Your task to perform on an android device: Go to accessibility settings Image 0: 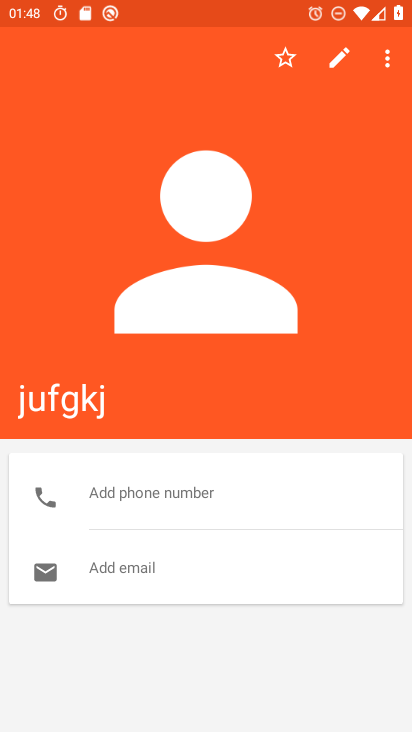
Step 0: press home button
Your task to perform on an android device: Go to accessibility settings Image 1: 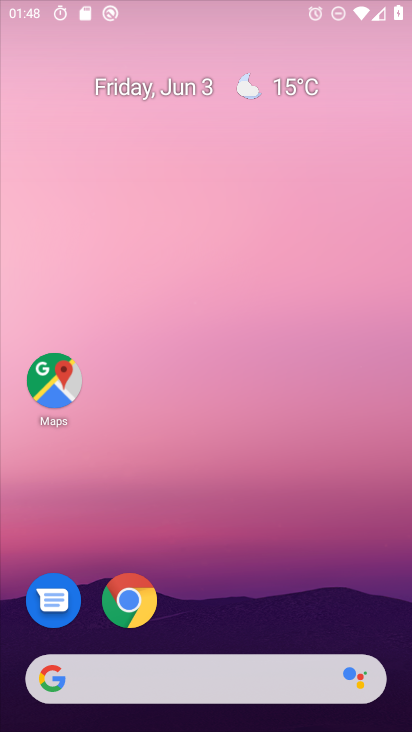
Step 1: drag from (220, 510) to (222, 71)
Your task to perform on an android device: Go to accessibility settings Image 2: 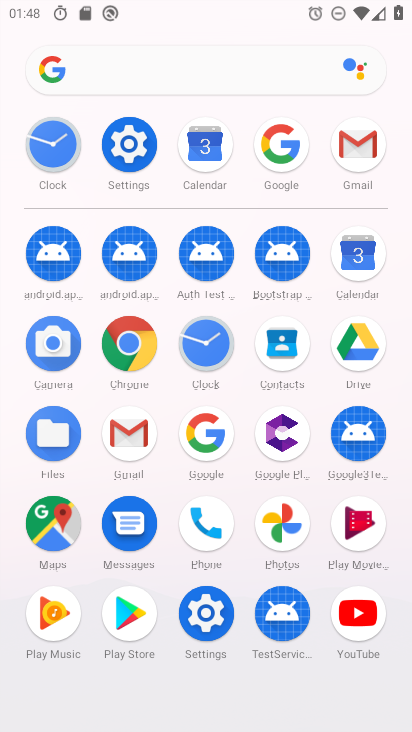
Step 2: click (126, 151)
Your task to perform on an android device: Go to accessibility settings Image 3: 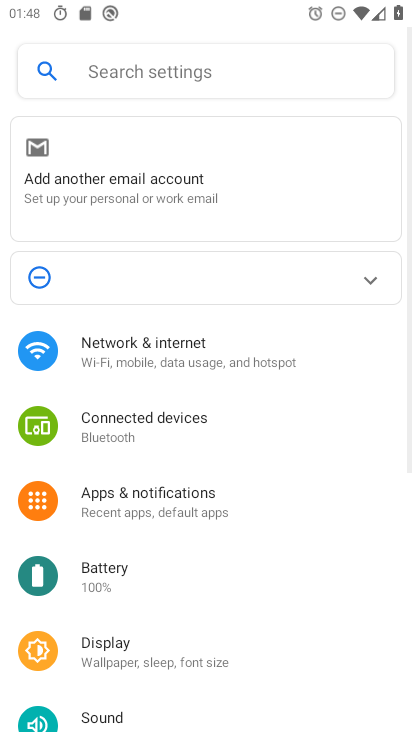
Step 3: drag from (246, 610) to (299, 55)
Your task to perform on an android device: Go to accessibility settings Image 4: 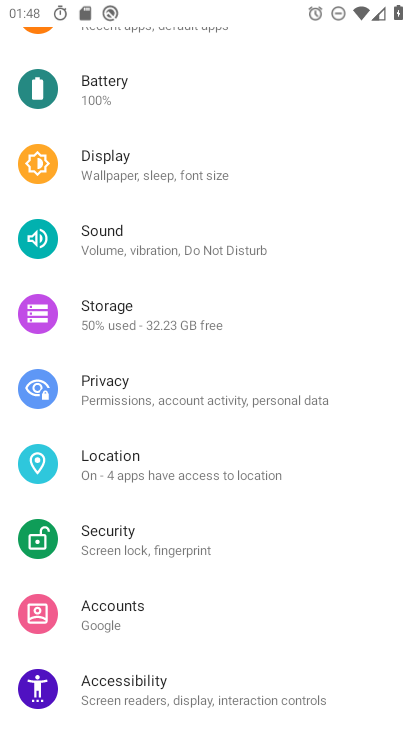
Step 4: click (151, 687)
Your task to perform on an android device: Go to accessibility settings Image 5: 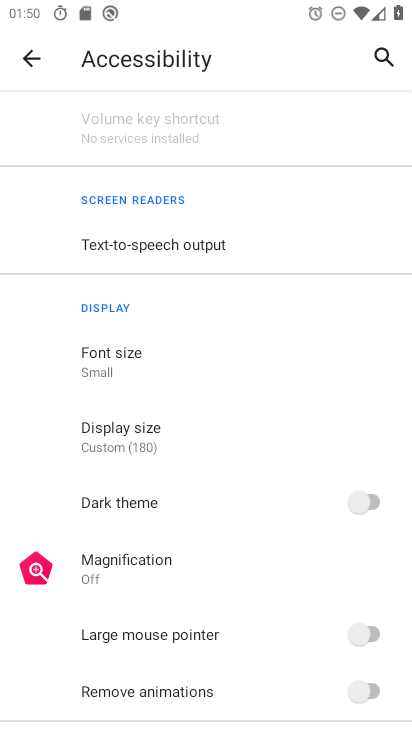
Step 5: task complete